Your task to perform on an android device: turn notification dots off Image 0: 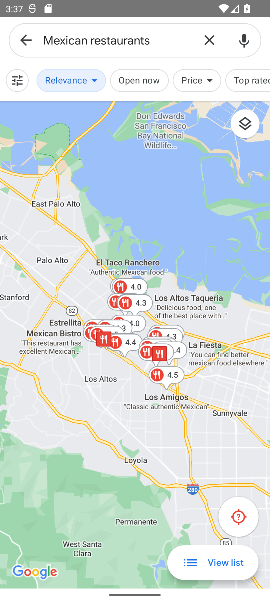
Step 0: press home button
Your task to perform on an android device: turn notification dots off Image 1: 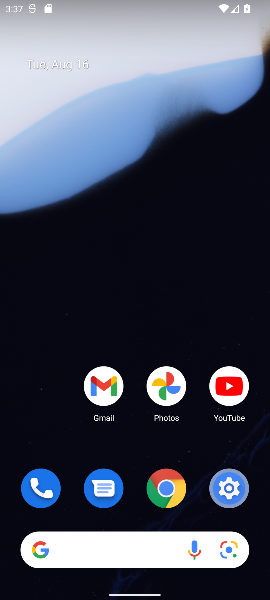
Step 1: click (235, 484)
Your task to perform on an android device: turn notification dots off Image 2: 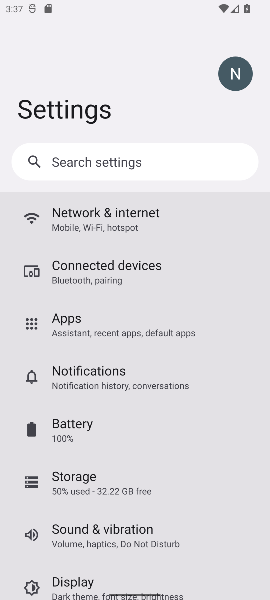
Step 2: task complete